Your task to perform on an android device: Open Chrome and go to the settings page Image 0: 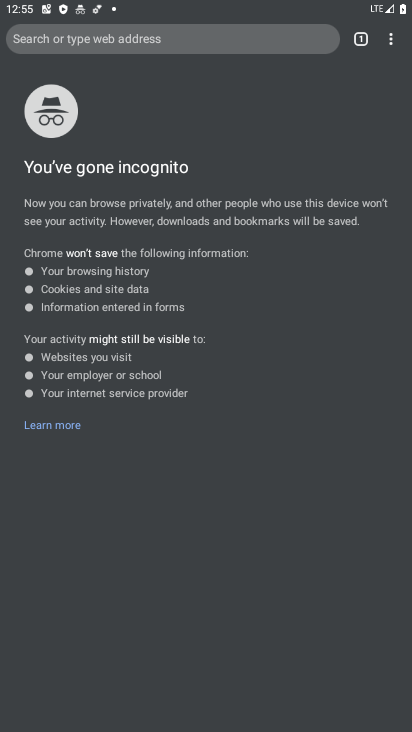
Step 0: press home button
Your task to perform on an android device: Open Chrome and go to the settings page Image 1: 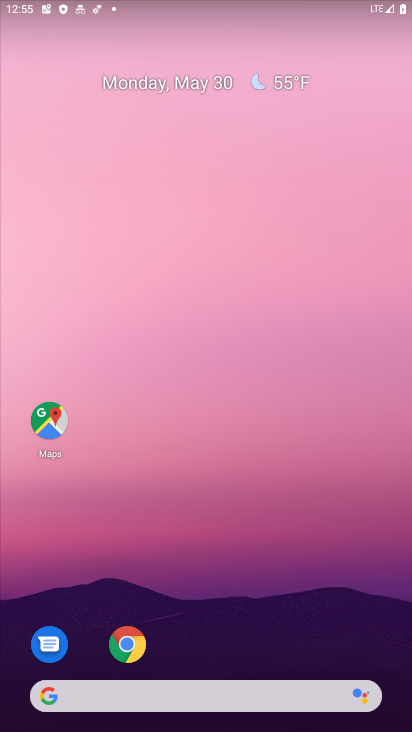
Step 1: click (136, 647)
Your task to perform on an android device: Open Chrome and go to the settings page Image 2: 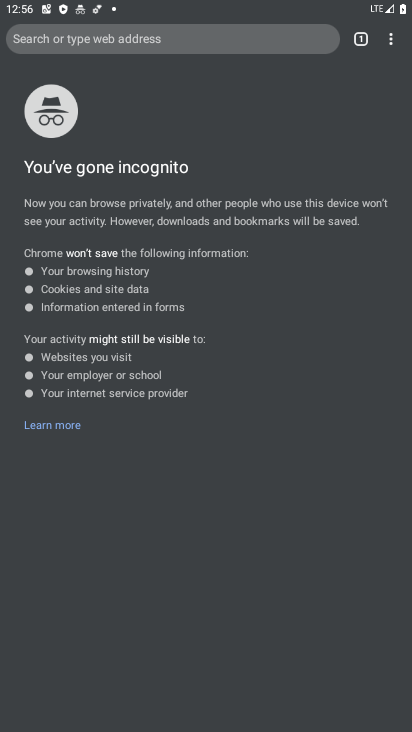
Step 2: click (400, 38)
Your task to perform on an android device: Open Chrome and go to the settings page Image 3: 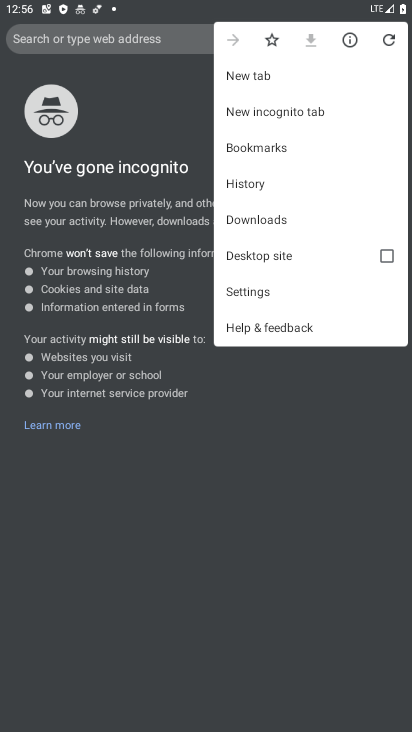
Step 3: click (317, 305)
Your task to perform on an android device: Open Chrome and go to the settings page Image 4: 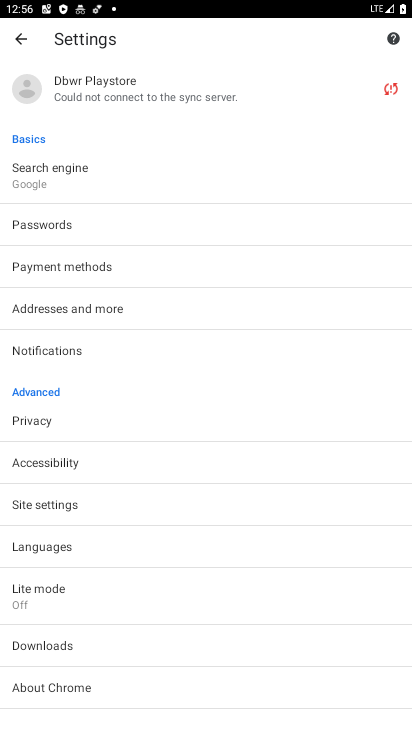
Step 4: task complete